Your task to perform on an android device: Check the settings for the Twitter app Image 0: 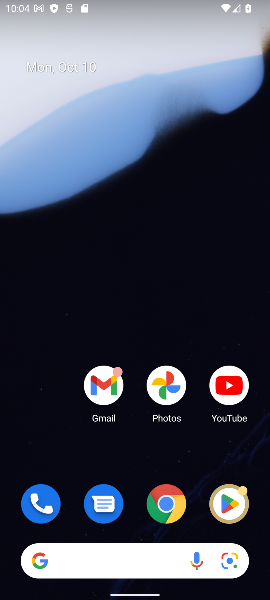
Step 0: click (225, 500)
Your task to perform on an android device: Check the settings for the Twitter app Image 1: 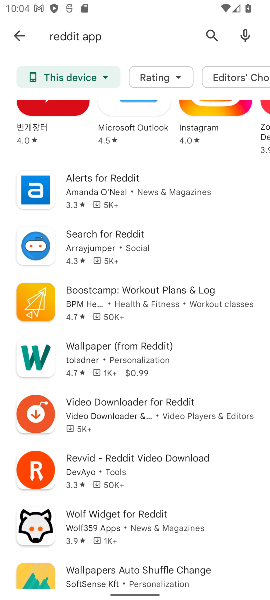
Step 1: click (206, 39)
Your task to perform on an android device: Check the settings for the Twitter app Image 2: 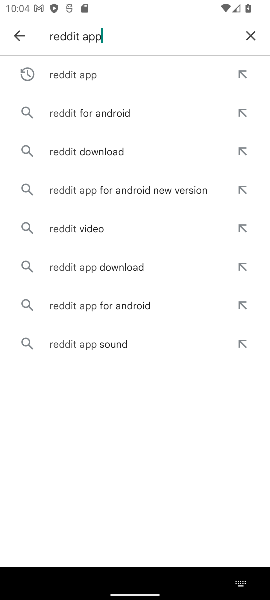
Step 2: click (252, 30)
Your task to perform on an android device: Check the settings for the Twitter app Image 3: 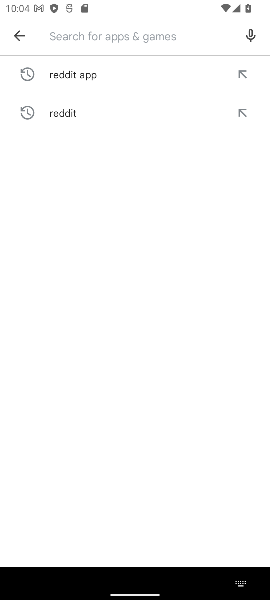
Step 3: type " Twitter app"
Your task to perform on an android device: Check the settings for the Twitter app Image 4: 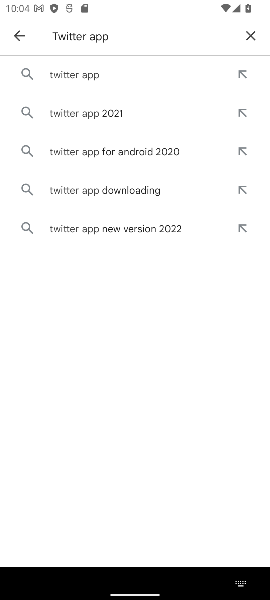
Step 4: click (79, 67)
Your task to perform on an android device: Check the settings for the Twitter app Image 5: 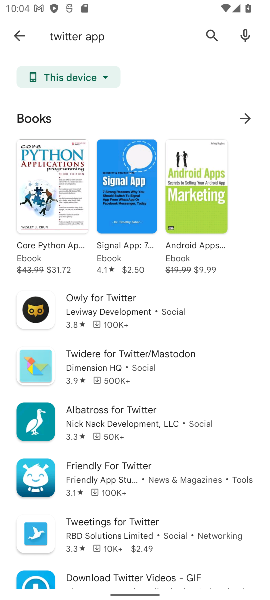
Step 5: task complete